Your task to perform on an android device: uninstall "Pluto TV - Live TV and Movies" Image 0: 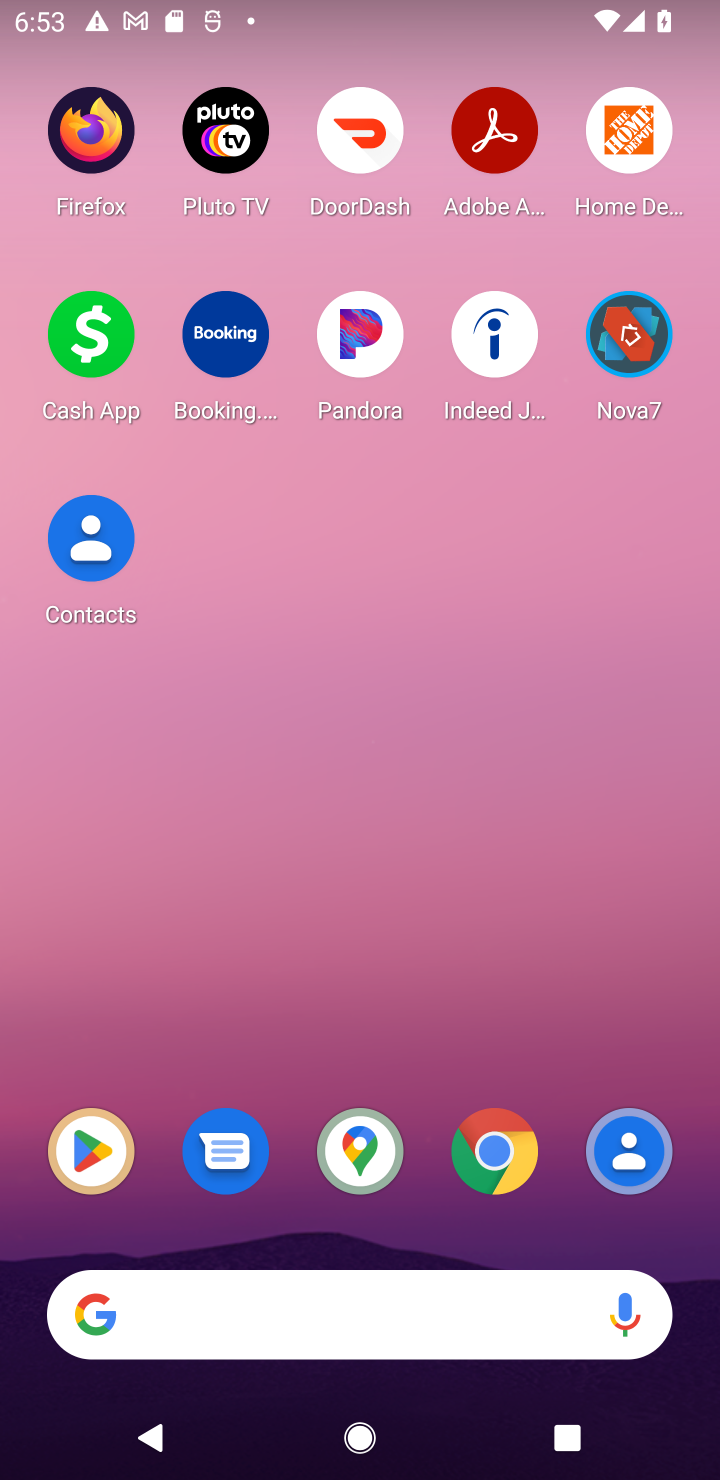
Step 0: drag from (470, 1297) to (433, 376)
Your task to perform on an android device: uninstall "Pluto TV - Live TV and Movies" Image 1: 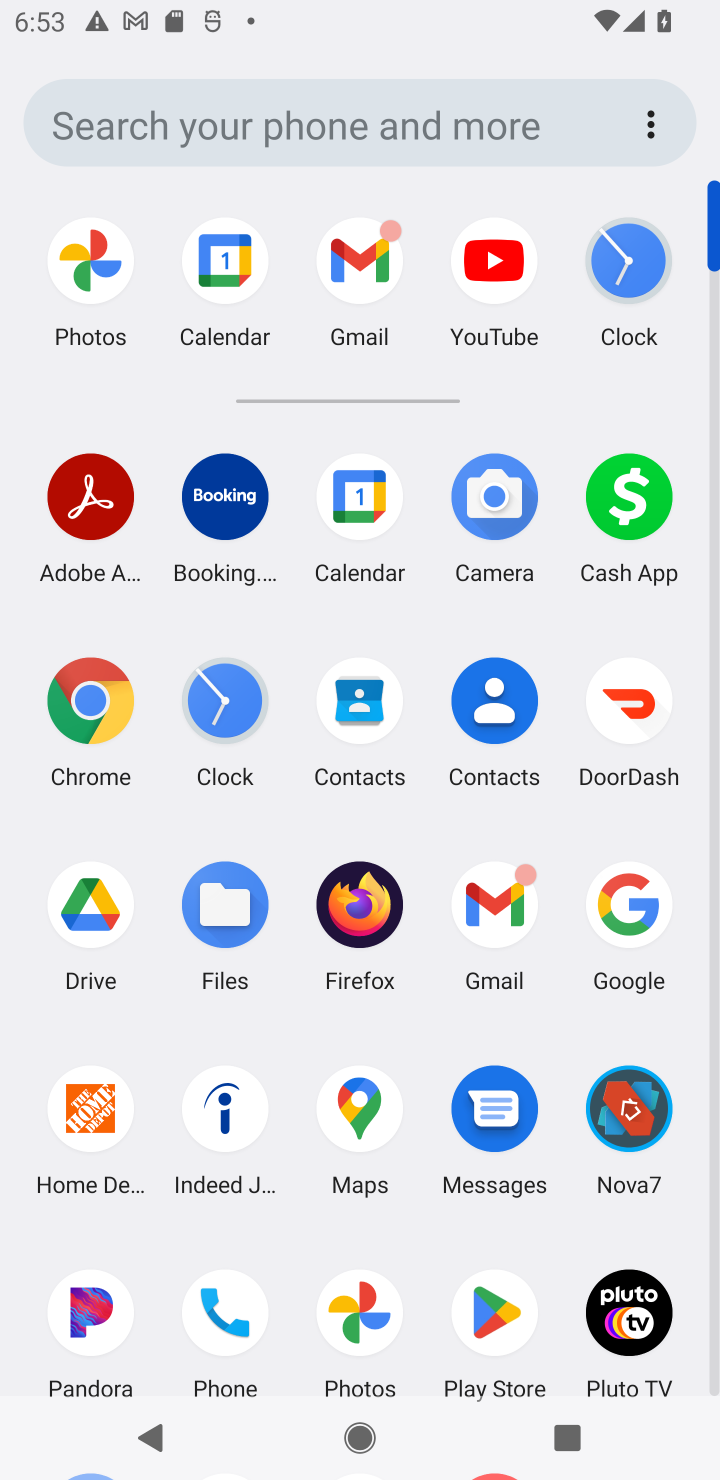
Step 1: click (477, 1276)
Your task to perform on an android device: uninstall "Pluto TV - Live TV and Movies" Image 2: 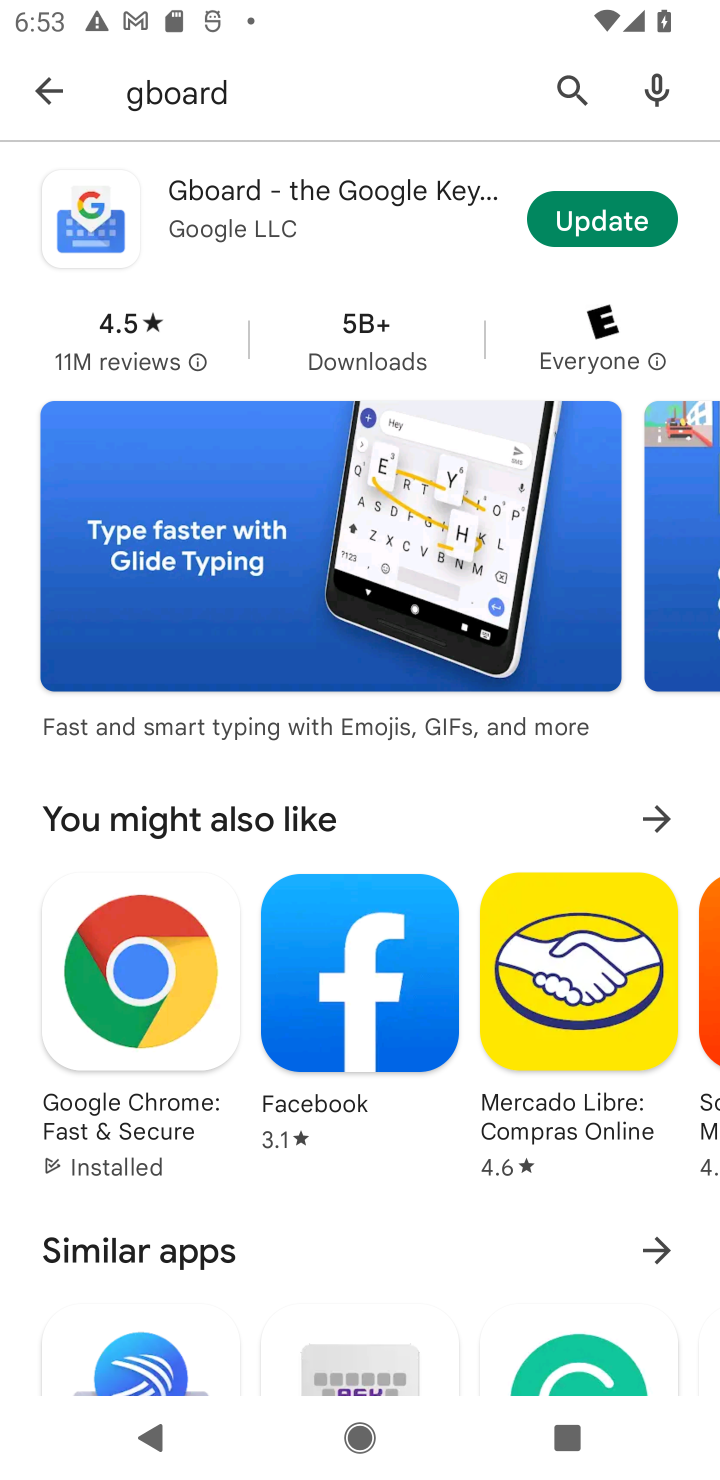
Step 2: click (568, 72)
Your task to perform on an android device: uninstall "Pluto TV - Live TV and Movies" Image 3: 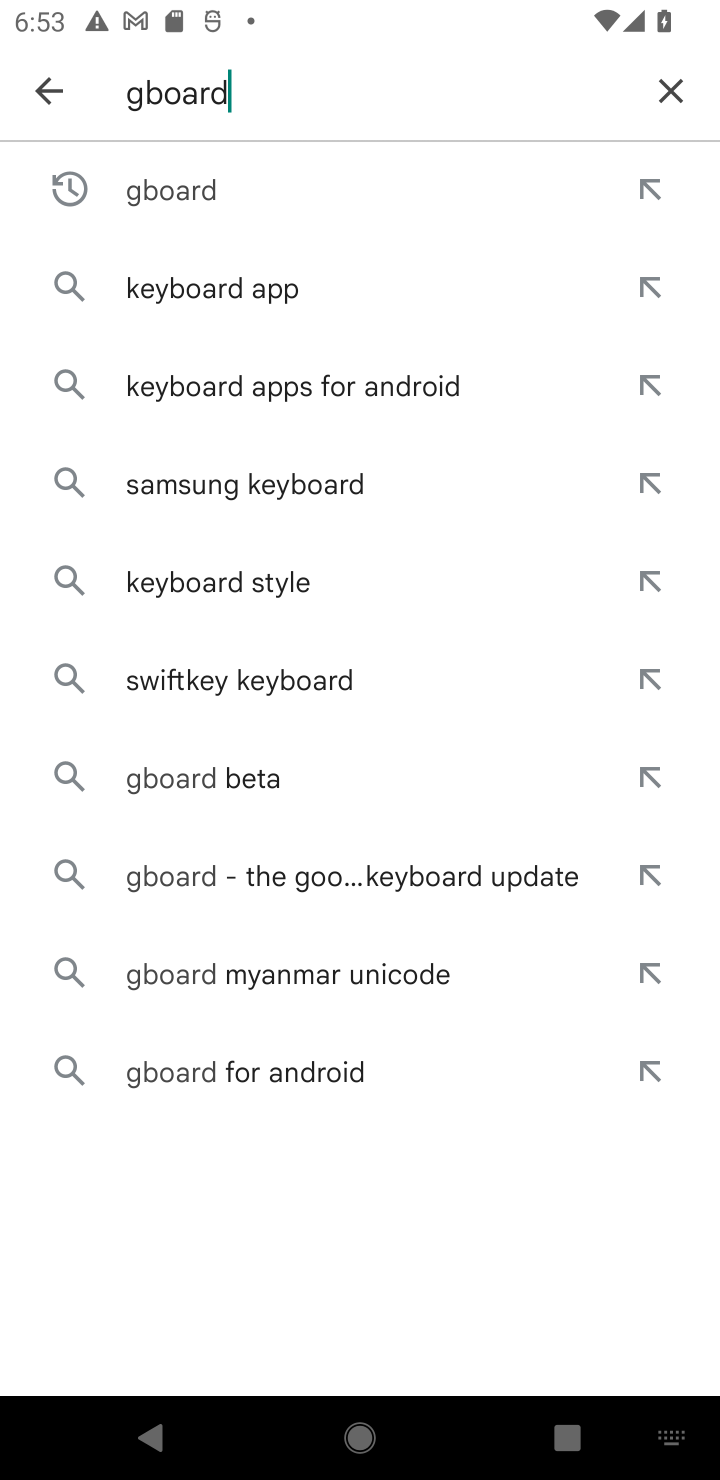
Step 3: click (669, 71)
Your task to perform on an android device: uninstall "Pluto TV - Live TV and Movies" Image 4: 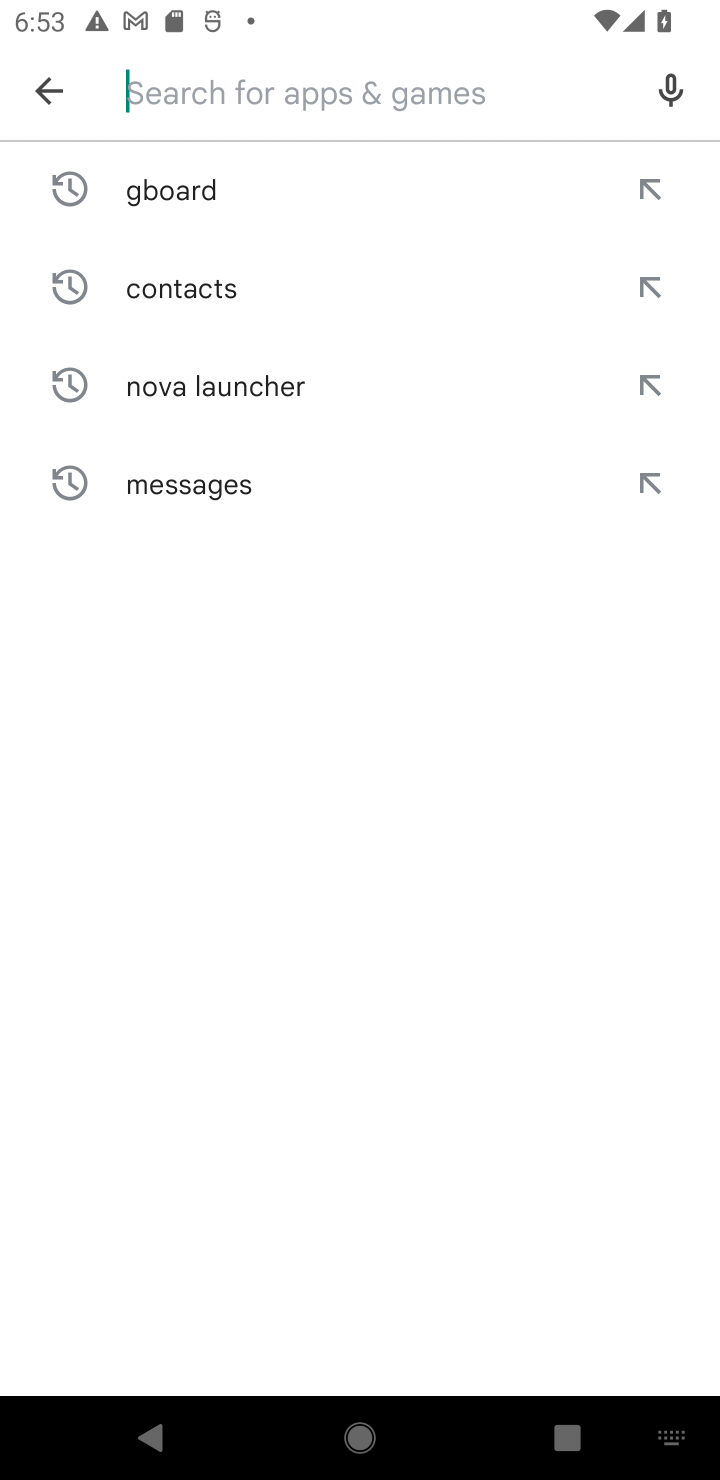
Step 4: type "pluto tv"
Your task to perform on an android device: uninstall "Pluto TV - Live TV and Movies" Image 5: 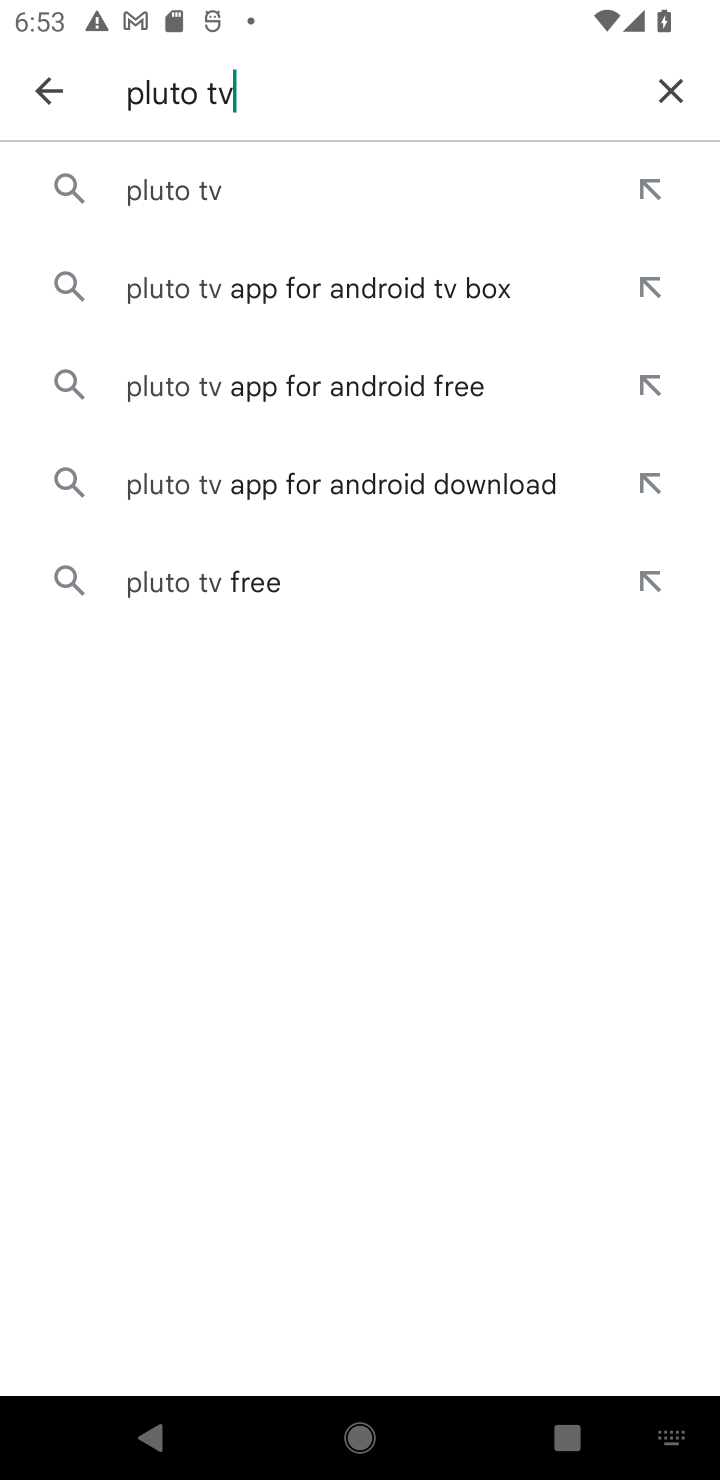
Step 5: click (203, 178)
Your task to perform on an android device: uninstall "Pluto TV - Live TV and Movies" Image 6: 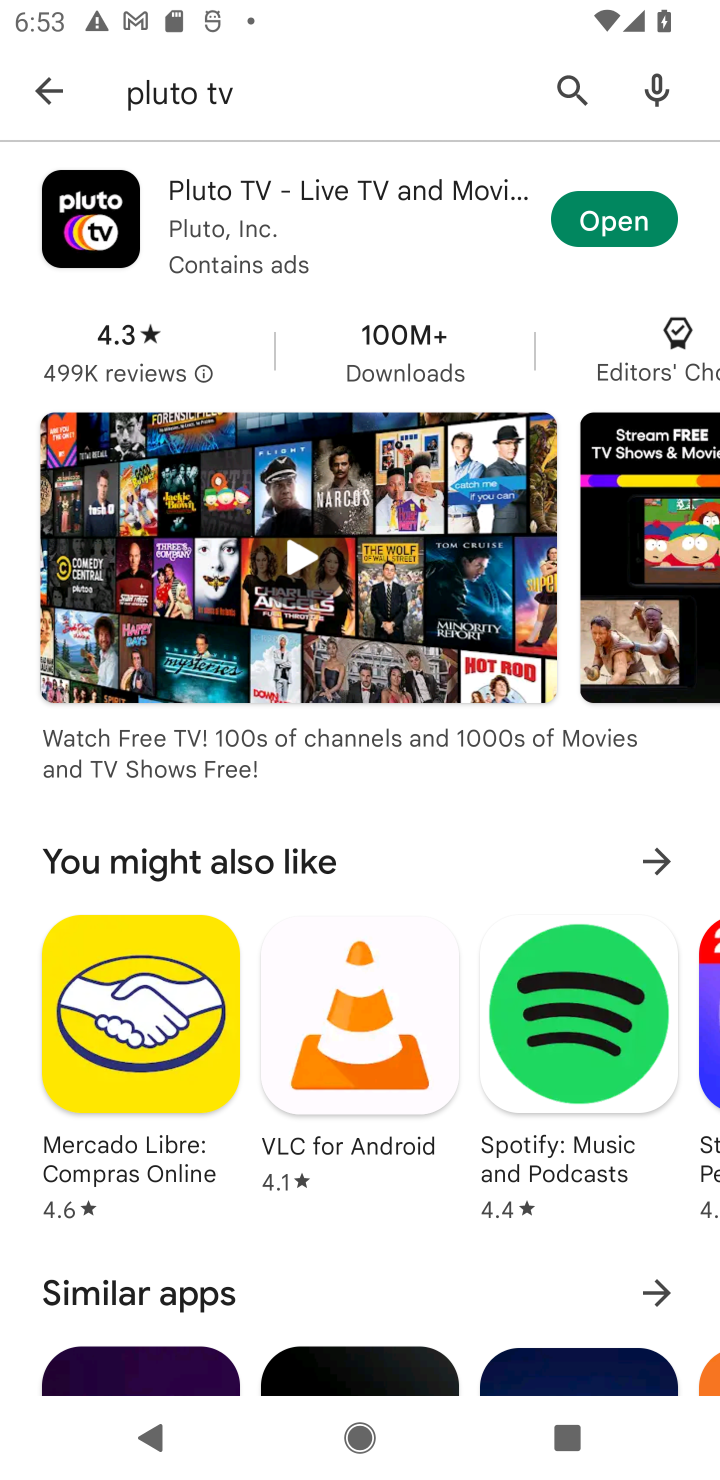
Step 6: task complete